Your task to perform on an android device: Open network settings Image 0: 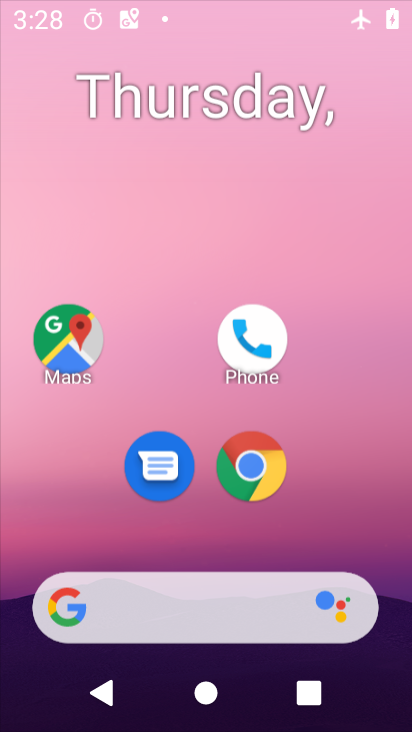
Step 0: click (191, 135)
Your task to perform on an android device: Open network settings Image 1: 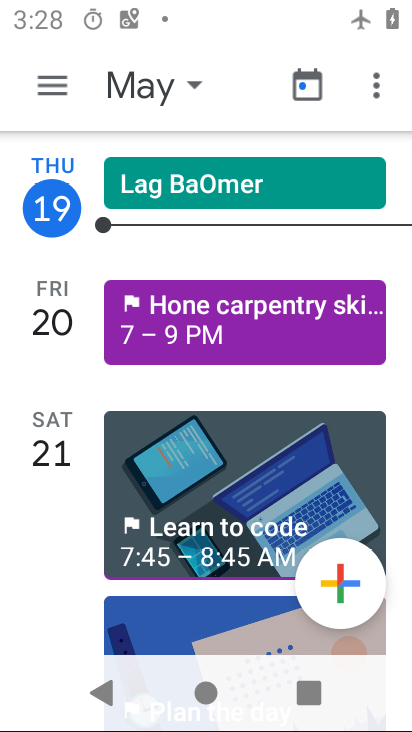
Step 1: drag from (204, 576) to (197, 138)
Your task to perform on an android device: Open network settings Image 2: 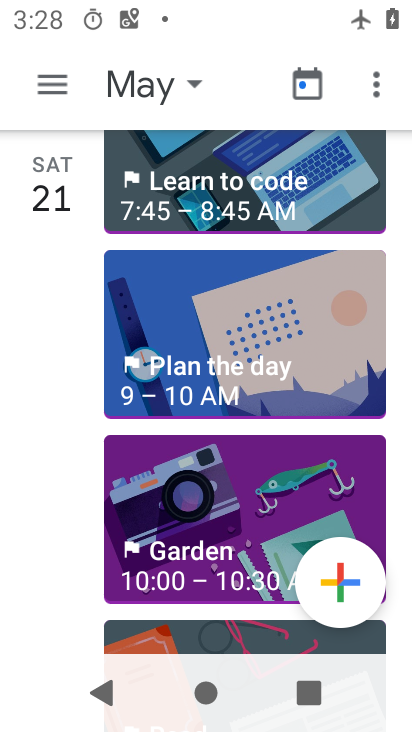
Step 2: press home button
Your task to perform on an android device: Open network settings Image 3: 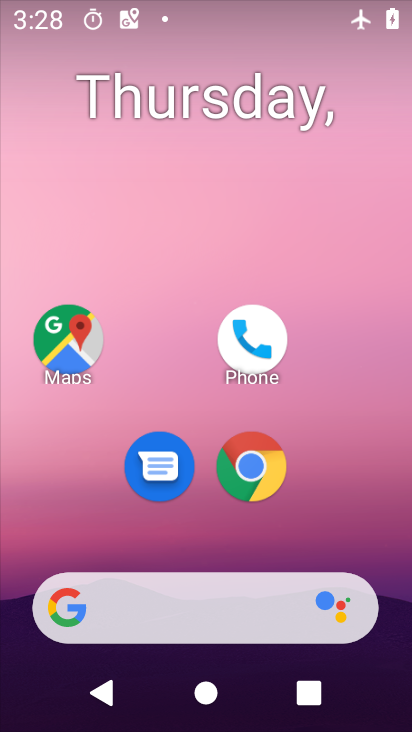
Step 3: drag from (206, 553) to (208, 304)
Your task to perform on an android device: Open network settings Image 4: 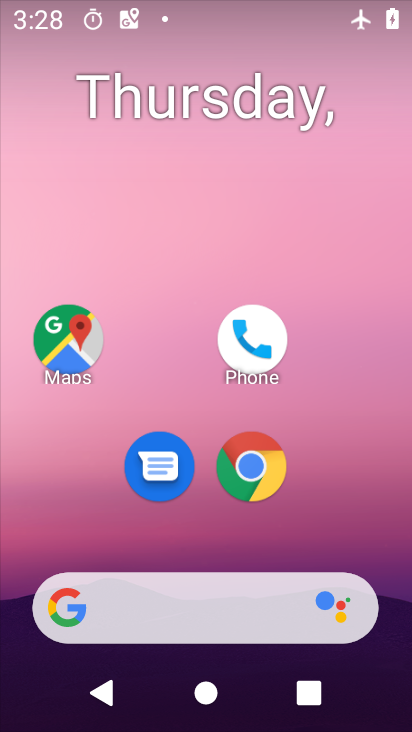
Step 4: drag from (198, 532) to (166, 107)
Your task to perform on an android device: Open network settings Image 5: 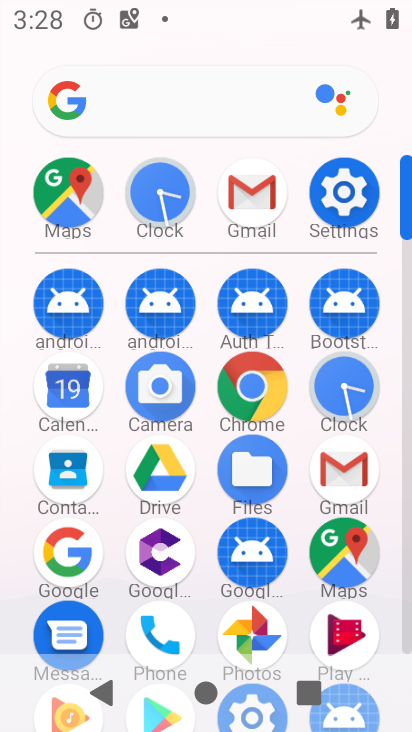
Step 5: click (341, 184)
Your task to perform on an android device: Open network settings Image 6: 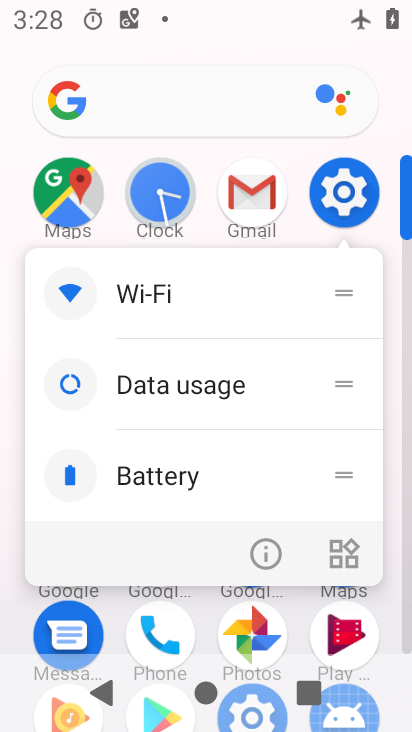
Step 6: click (270, 560)
Your task to perform on an android device: Open network settings Image 7: 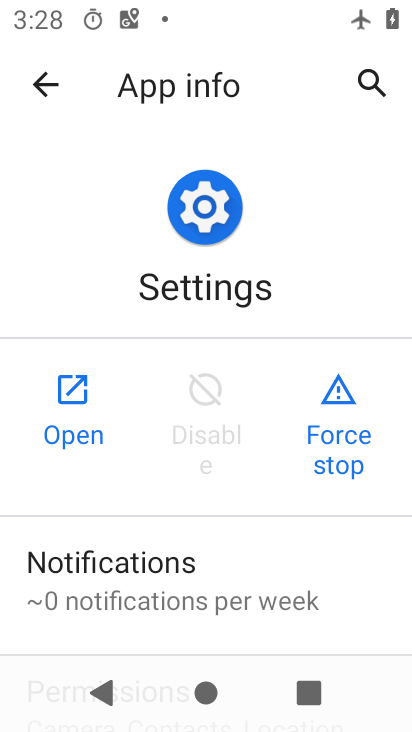
Step 7: click (75, 406)
Your task to perform on an android device: Open network settings Image 8: 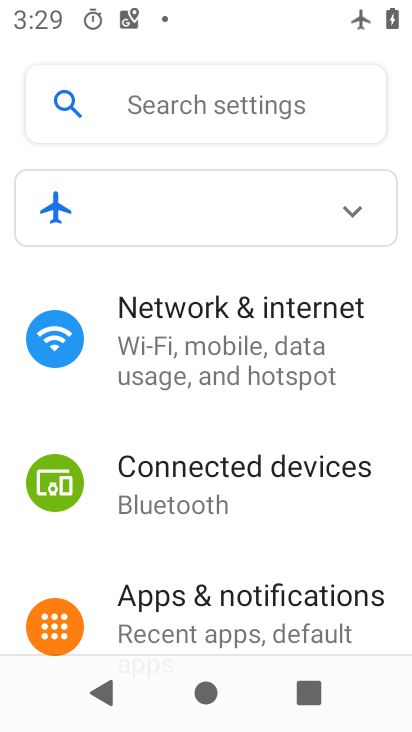
Step 8: click (208, 328)
Your task to perform on an android device: Open network settings Image 9: 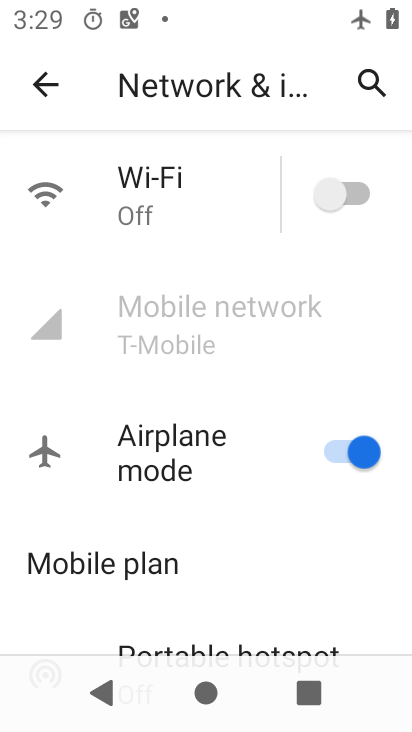
Step 9: task complete